Your task to perform on an android device: Go to eBay Image 0: 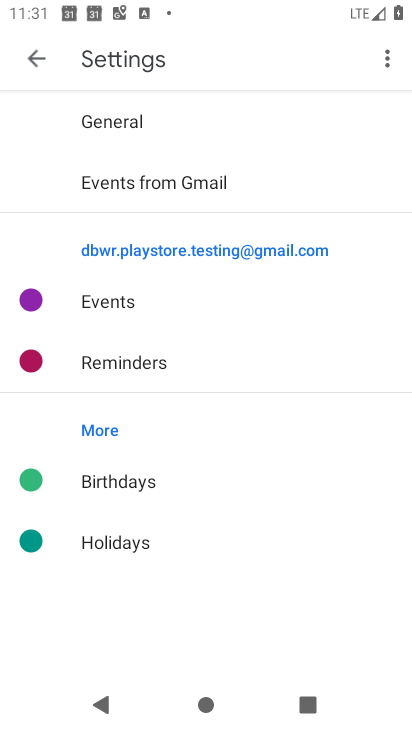
Step 0: press home button
Your task to perform on an android device: Go to eBay Image 1: 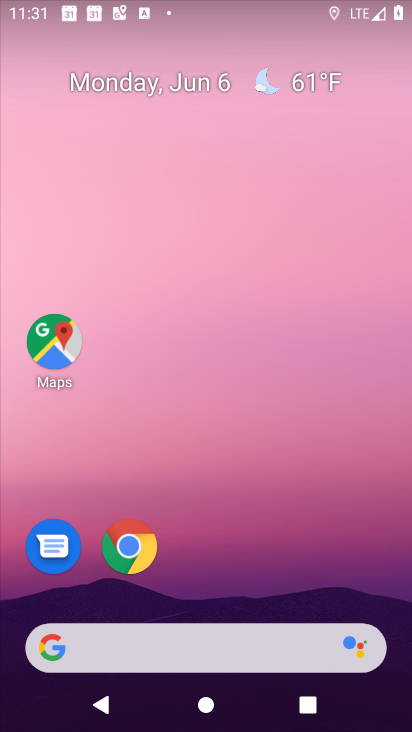
Step 1: click (132, 551)
Your task to perform on an android device: Go to eBay Image 2: 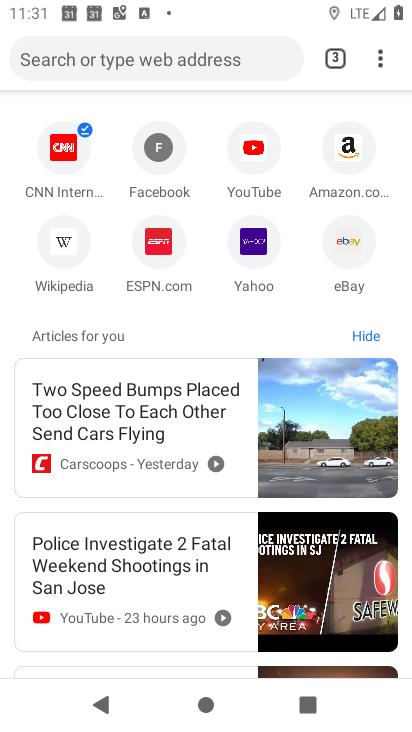
Step 2: click (140, 49)
Your task to perform on an android device: Go to eBay Image 3: 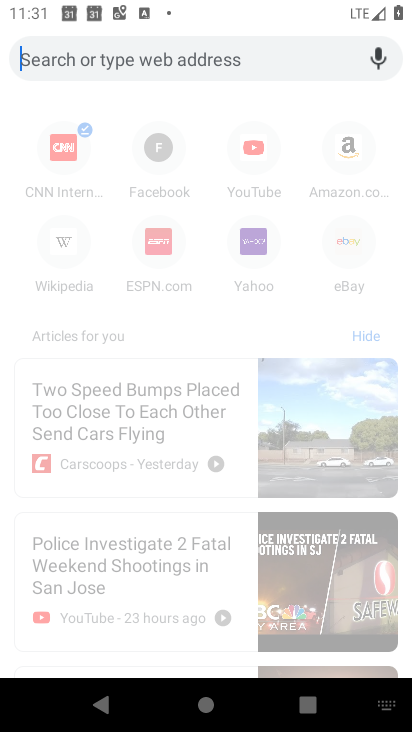
Step 3: type "ebay"
Your task to perform on an android device: Go to eBay Image 4: 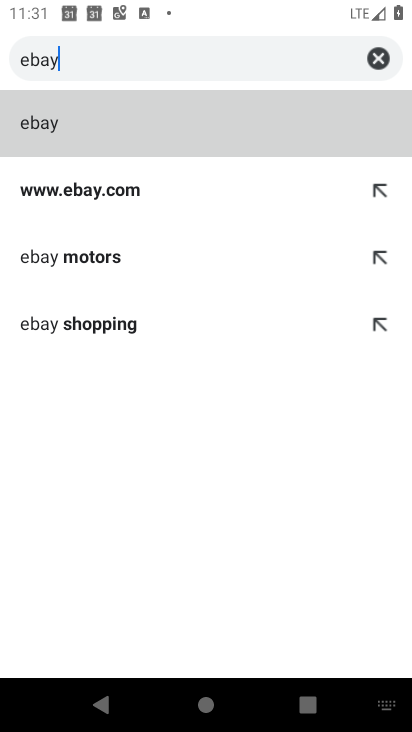
Step 4: click (95, 128)
Your task to perform on an android device: Go to eBay Image 5: 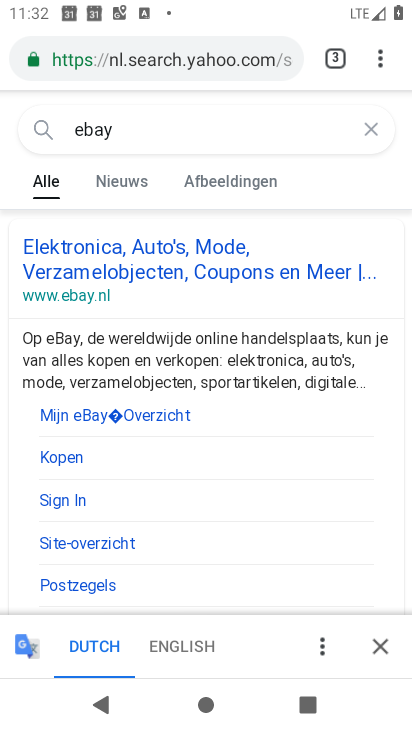
Step 5: click (62, 296)
Your task to perform on an android device: Go to eBay Image 6: 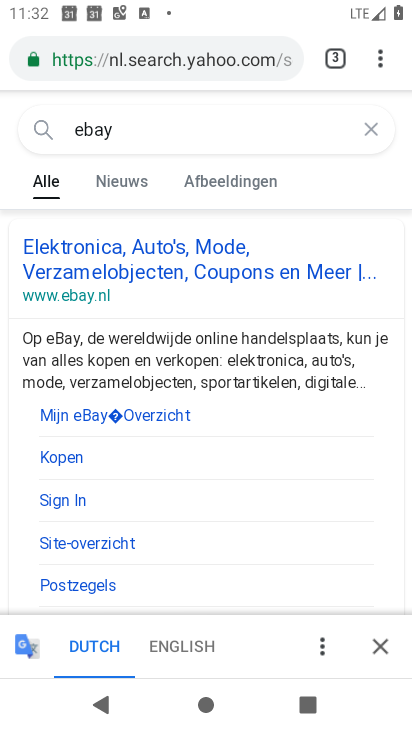
Step 6: drag from (201, 549) to (219, 240)
Your task to perform on an android device: Go to eBay Image 7: 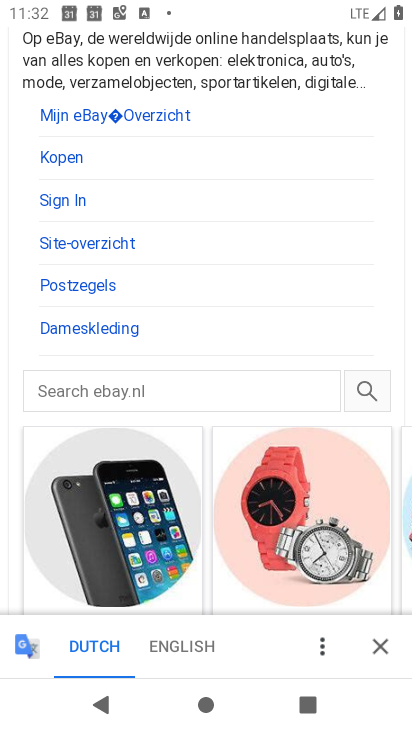
Step 7: drag from (188, 184) to (193, 547)
Your task to perform on an android device: Go to eBay Image 8: 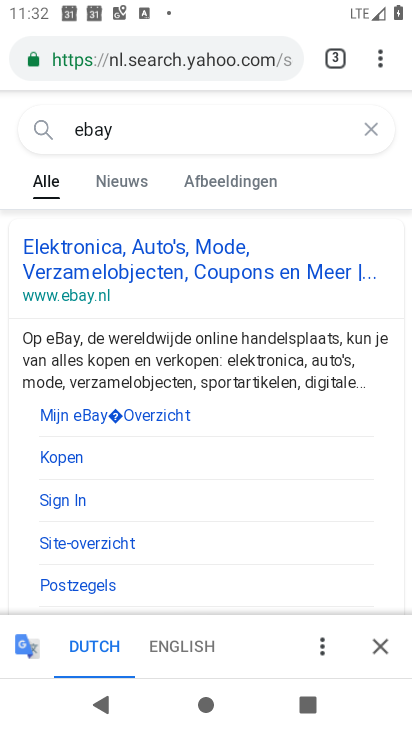
Step 8: click (69, 281)
Your task to perform on an android device: Go to eBay Image 9: 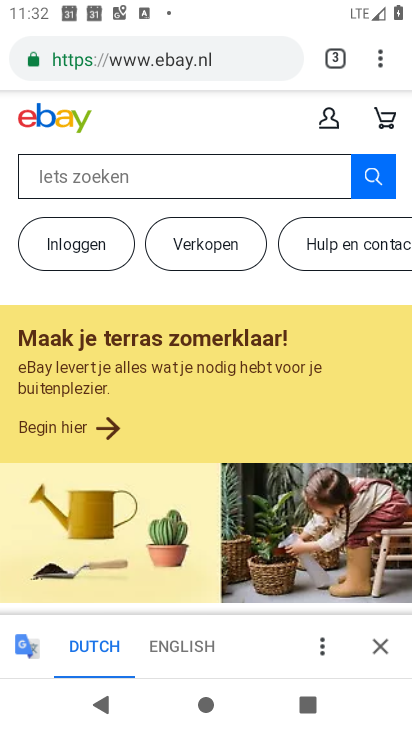
Step 9: click (379, 642)
Your task to perform on an android device: Go to eBay Image 10: 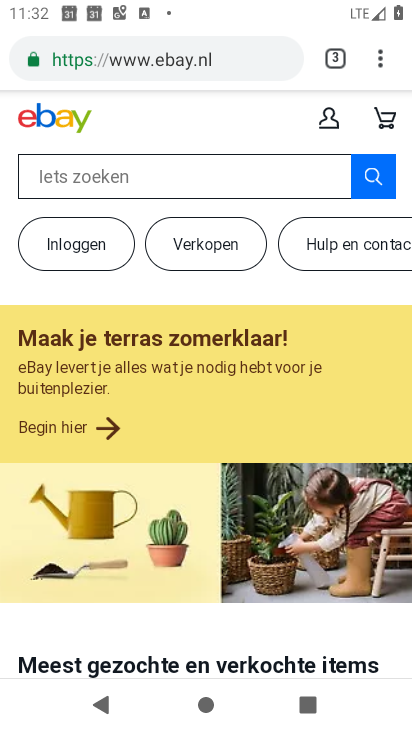
Step 10: task complete